Your task to perform on an android device: turn pop-ups off in chrome Image 0: 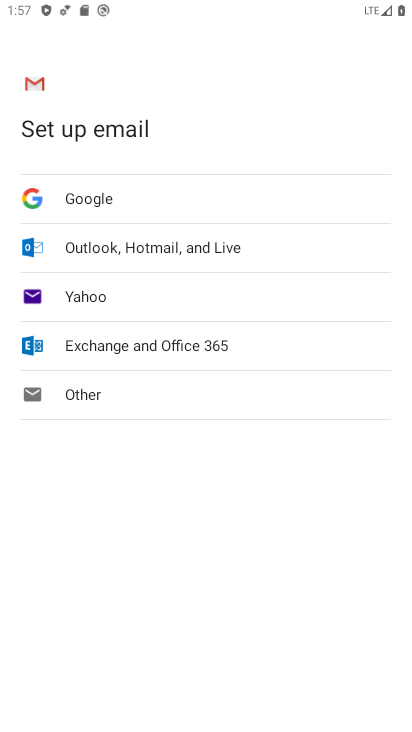
Step 0: press home button
Your task to perform on an android device: turn pop-ups off in chrome Image 1: 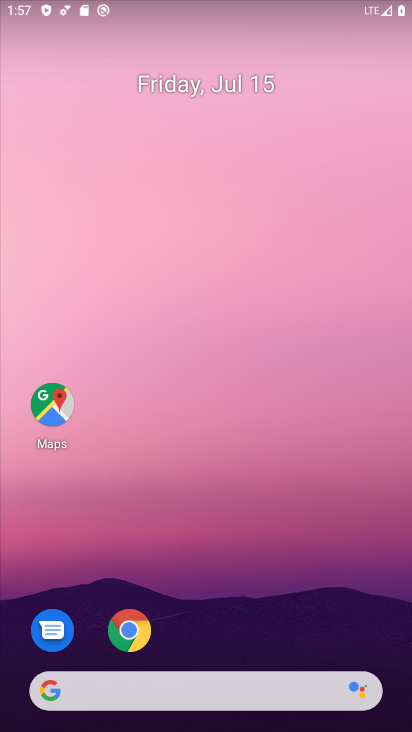
Step 1: click (125, 633)
Your task to perform on an android device: turn pop-ups off in chrome Image 2: 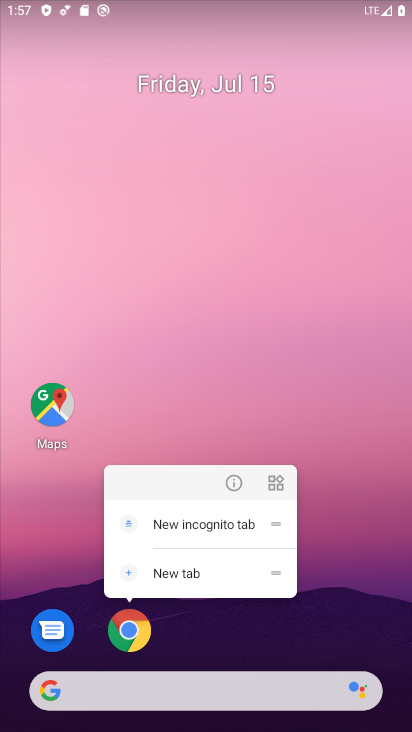
Step 2: click (142, 635)
Your task to perform on an android device: turn pop-ups off in chrome Image 3: 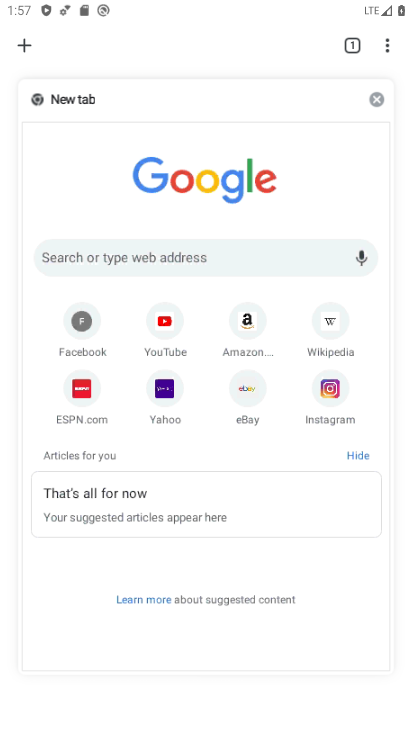
Step 3: drag from (388, 43) to (239, 175)
Your task to perform on an android device: turn pop-ups off in chrome Image 4: 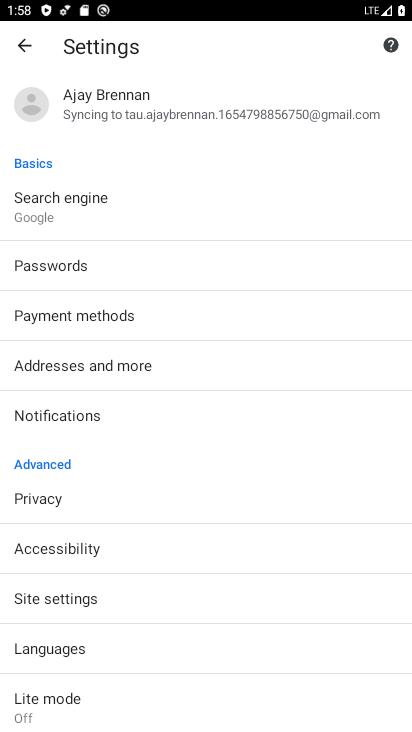
Step 4: click (71, 600)
Your task to perform on an android device: turn pop-ups off in chrome Image 5: 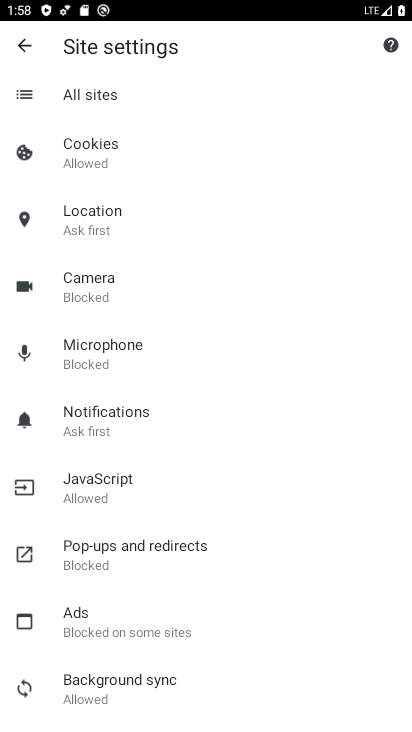
Step 5: click (105, 566)
Your task to perform on an android device: turn pop-ups off in chrome Image 6: 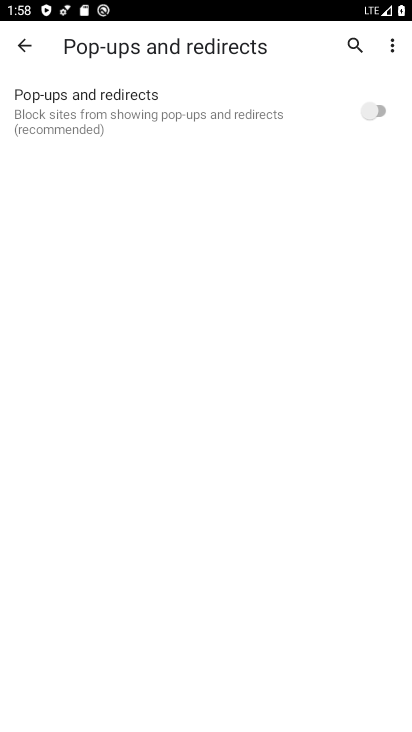
Step 6: task complete